Your task to perform on an android device: allow notifications from all sites in the chrome app Image 0: 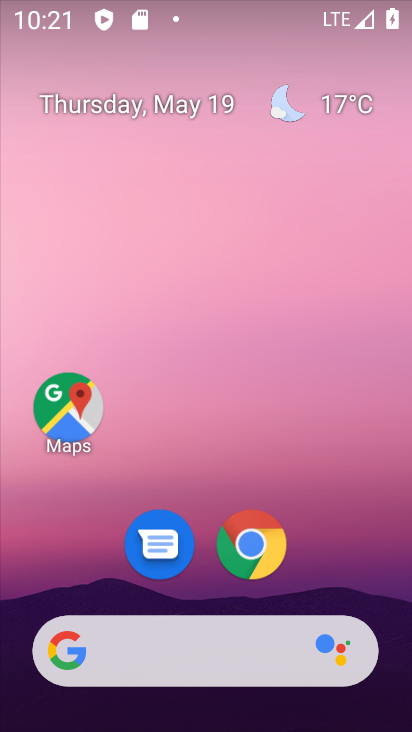
Step 0: click (268, 545)
Your task to perform on an android device: allow notifications from all sites in the chrome app Image 1: 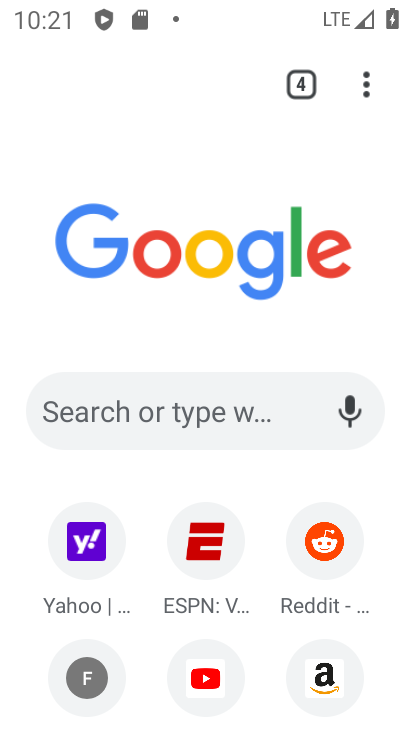
Step 1: click (377, 73)
Your task to perform on an android device: allow notifications from all sites in the chrome app Image 2: 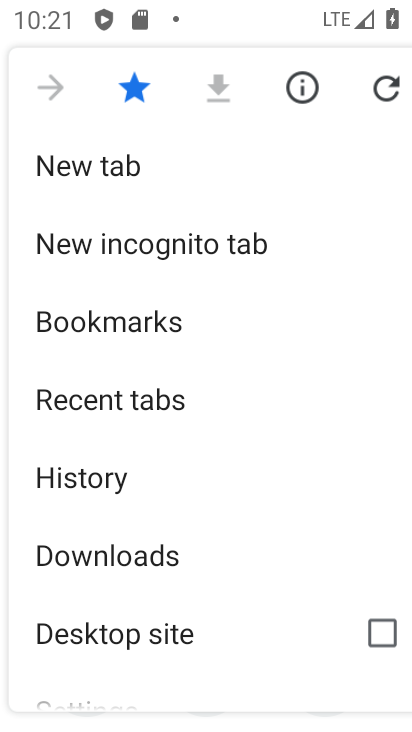
Step 2: drag from (205, 678) to (206, 150)
Your task to perform on an android device: allow notifications from all sites in the chrome app Image 3: 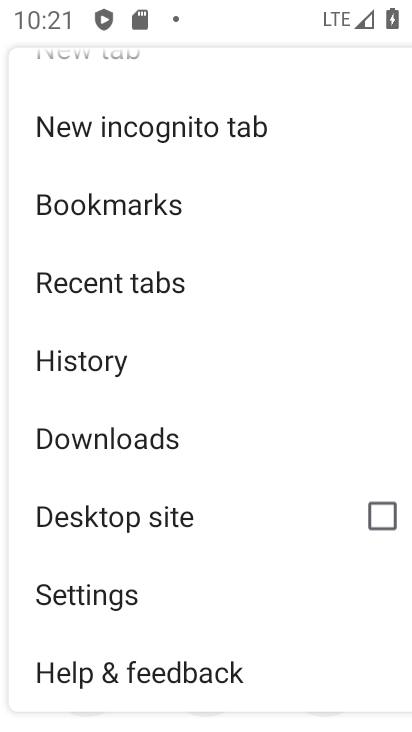
Step 3: click (146, 602)
Your task to perform on an android device: allow notifications from all sites in the chrome app Image 4: 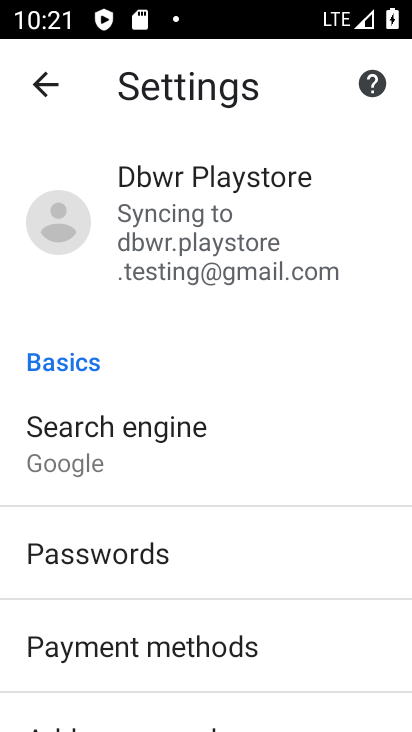
Step 4: drag from (322, 691) to (276, 114)
Your task to perform on an android device: allow notifications from all sites in the chrome app Image 5: 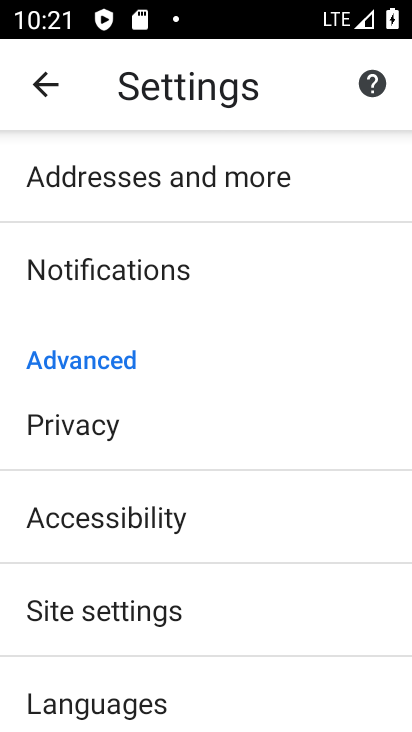
Step 5: click (168, 263)
Your task to perform on an android device: allow notifications from all sites in the chrome app Image 6: 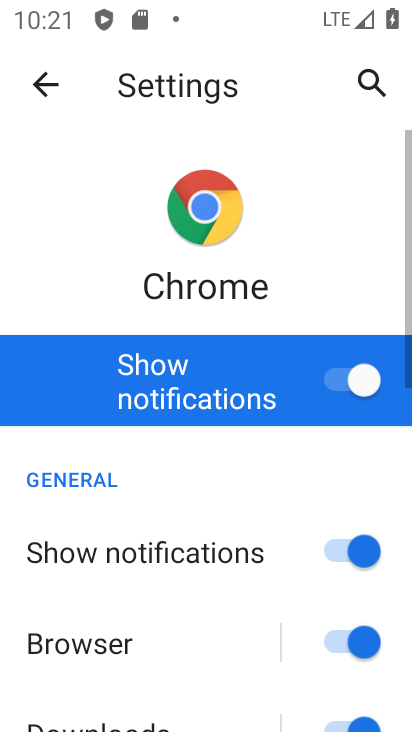
Step 6: task complete